Your task to perform on an android device: Search for sushi restaurants on Maps Image 0: 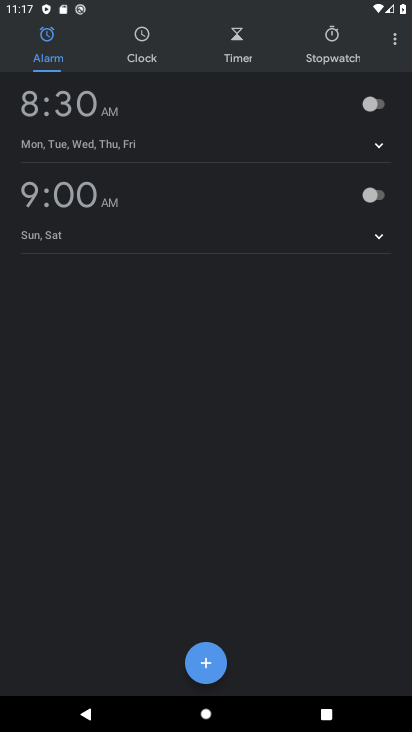
Step 0: press home button
Your task to perform on an android device: Search for sushi restaurants on Maps Image 1: 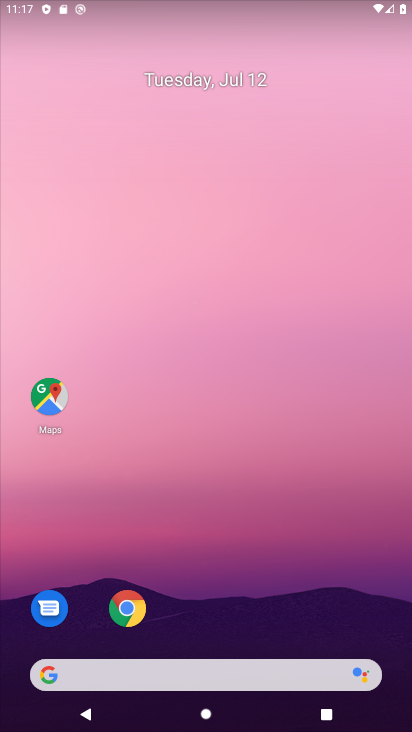
Step 1: click (53, 397)
Your task to perform on an android device: Search for sushi restaurants on Maps Image 2: 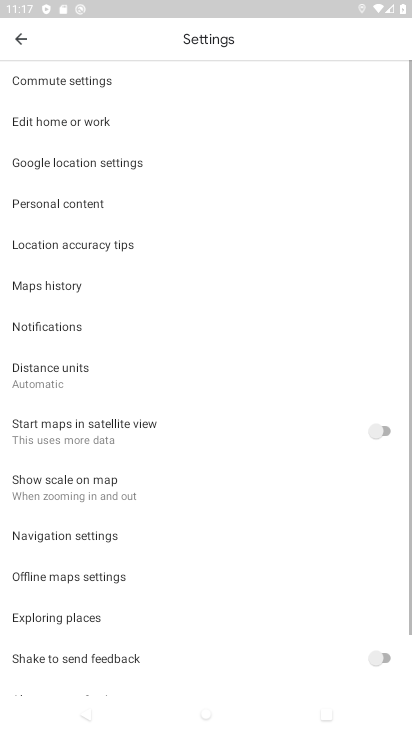
Step 2: click (32, 38)
Your task to perform on an android device: Search for sushi restaurants on Maps Image 3: 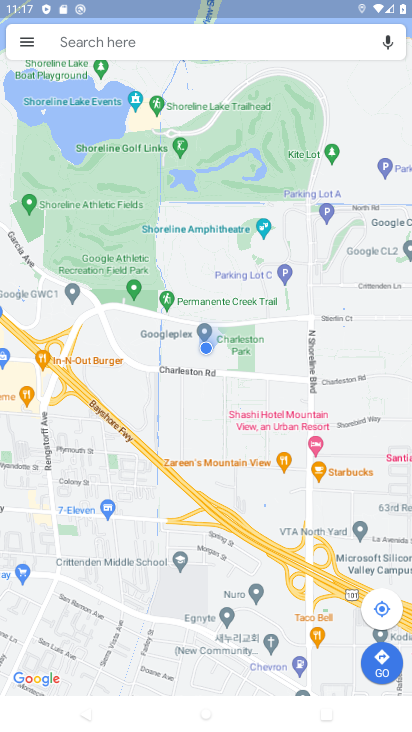
Step 3: click (162, 28)
Your task to perform on an android device: Search for sushi restaurants on Maps Image 4: 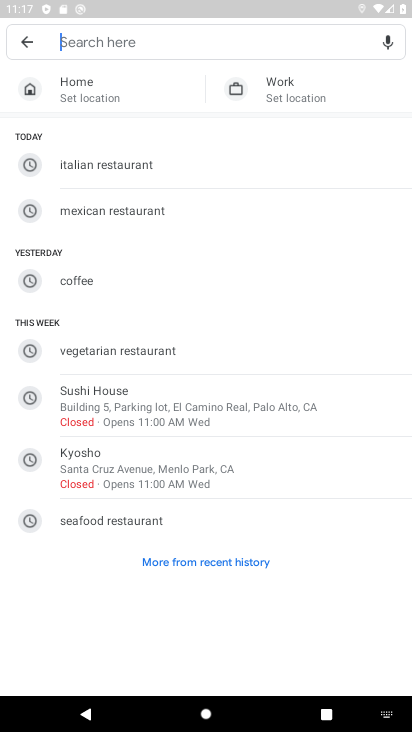
Step 4: type "sushi restaurant"
Your task to perform on an android device: Search for sushi restaurants on Maps Image 5: 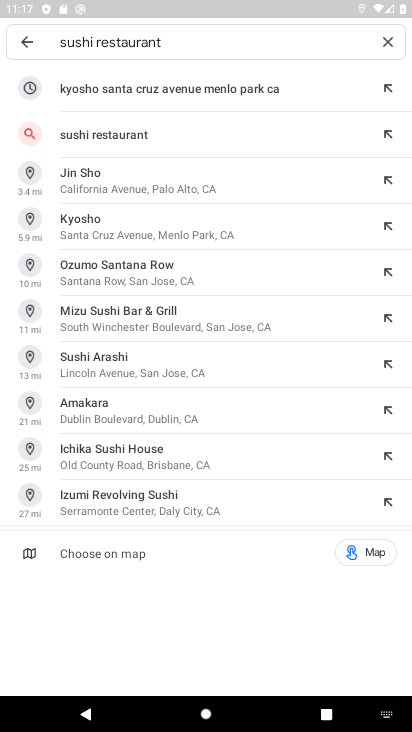
Step 5: click (138, 138)
Your task to perform on an android device: Search for sushi restaurants on Maps Image 6: 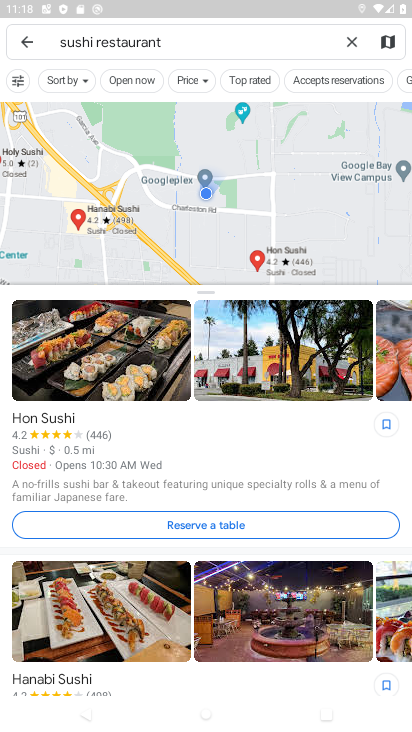
Step 6: task complete